Your task to perform on an android device: show emergency info Image 0: 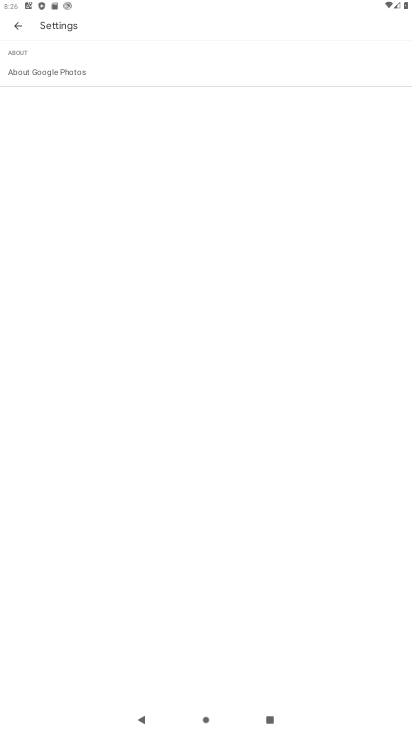
Step 0: press home button
Your task to perform on an android device: show emergency info Image 1: 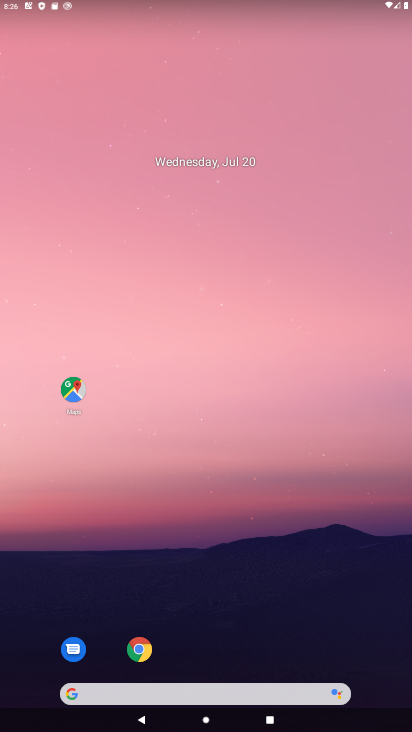
Step 1: drag from (203, 687) to (299, 142)
Your task to perform on an android device: show emergency info Image 2: 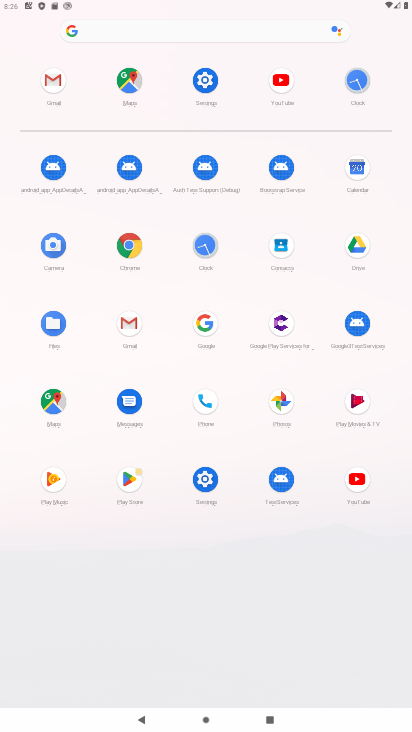
Step 2: click (205, 79)
Your task to perform on an android device: show emergency info Image 3: 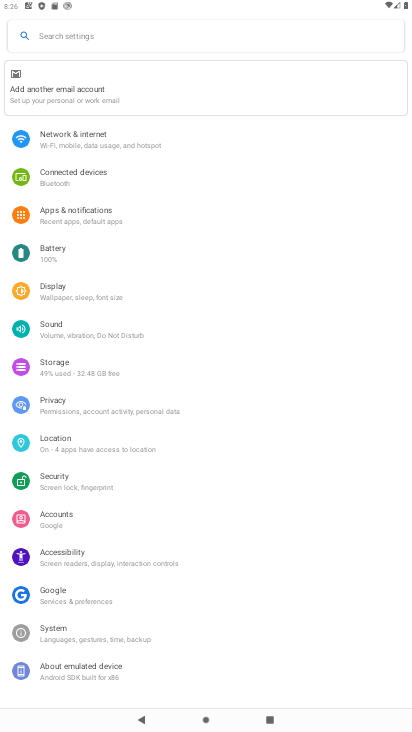
Step 3: click (63, 671)
Your task to perform on an android device: show emergency info Image 4: 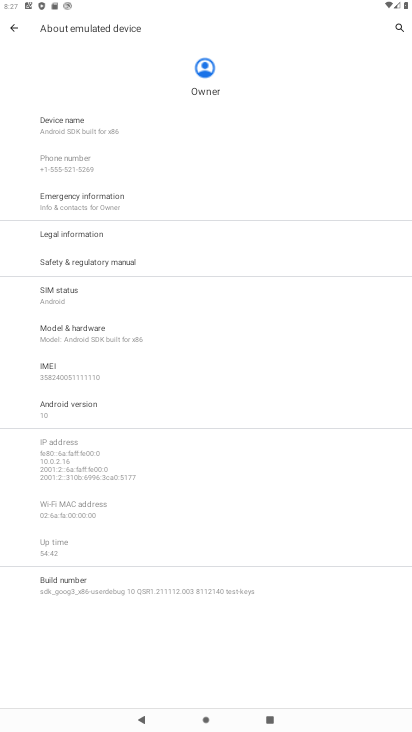
Step 4: click (87, 206)
Your task to perform on an android device: show emergency info Image 5: 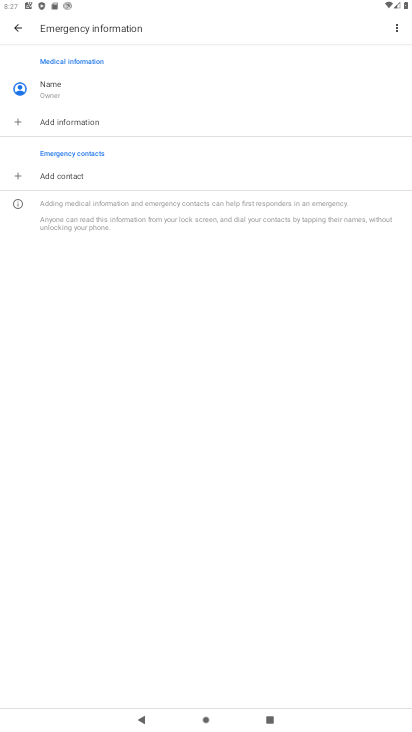
Step 5: task complete